Your task to perform on an android device: Open notification settings Image 0: 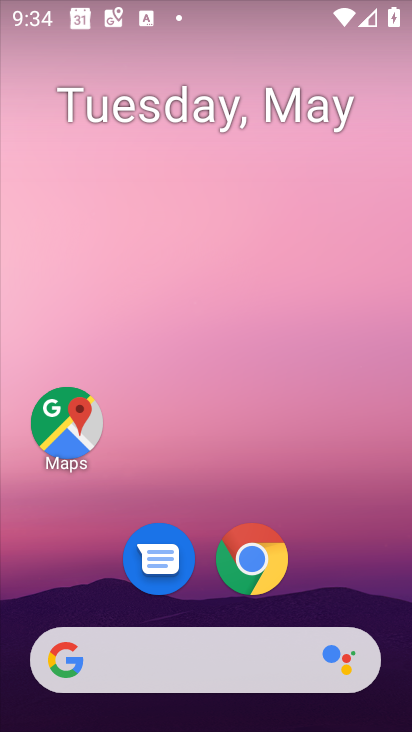
Step 0: drag from (181, 640) to (306, 67)
Your task to perform on an android device: Open notification settings Image 1: 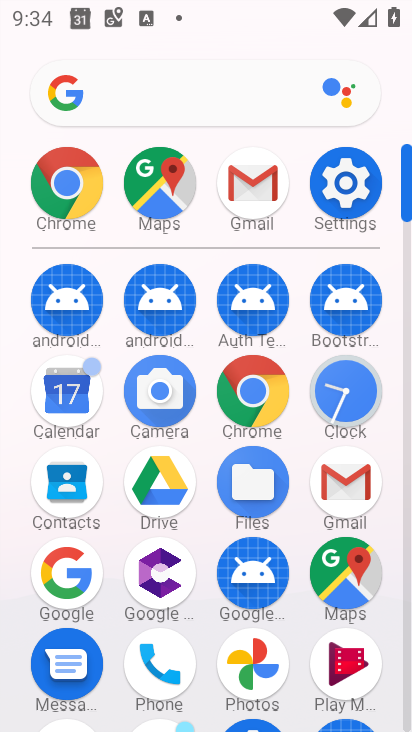
Step 1: click (351, 195)
Your task to perform on an android device: Open notification settings Image 2: 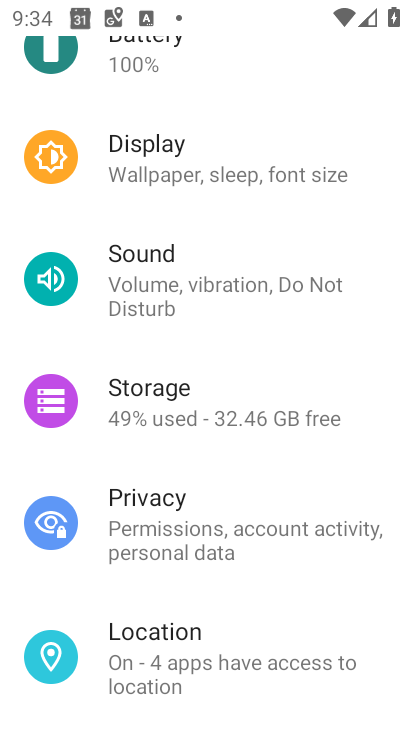
Step 2: drag from (211, 630) to (242, 22)
Your task to perform on an android device: Open notification settings Image 3: 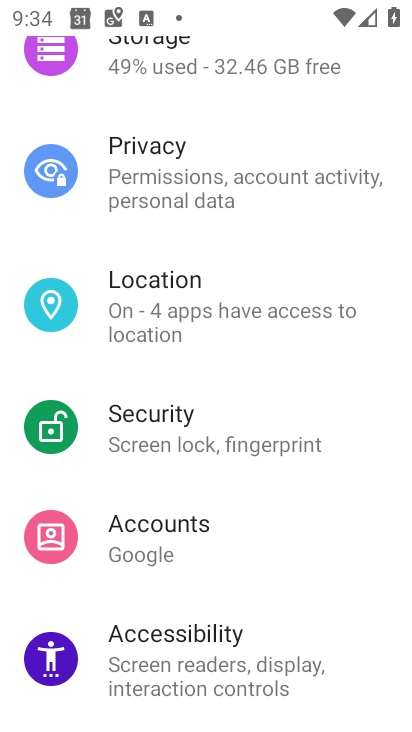
Step 3: drag from (227, 495) to (281, 729)
Your task to perform on an android device: Open notification settings Image 4: 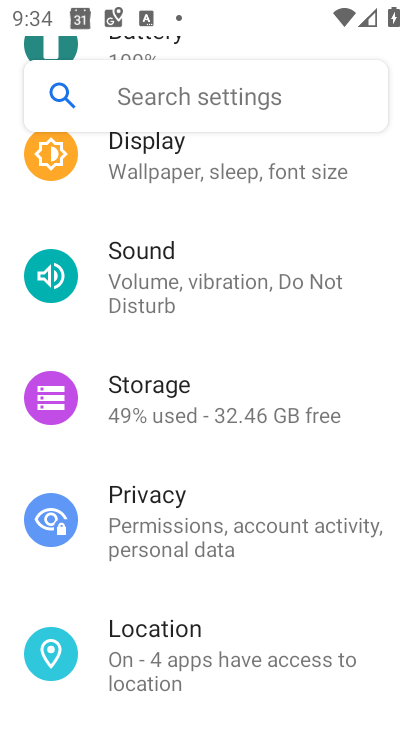
Step 4: drag from (234, 225) to (70, 649)
Your task to perform on an android device: Open notification settings Image 5: 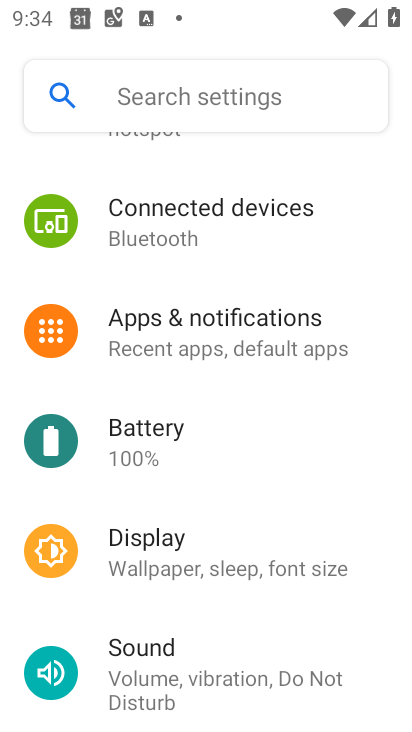
Step 5: click (218, 321)
Your task to perform on an android device: Open notification settings Image 6: 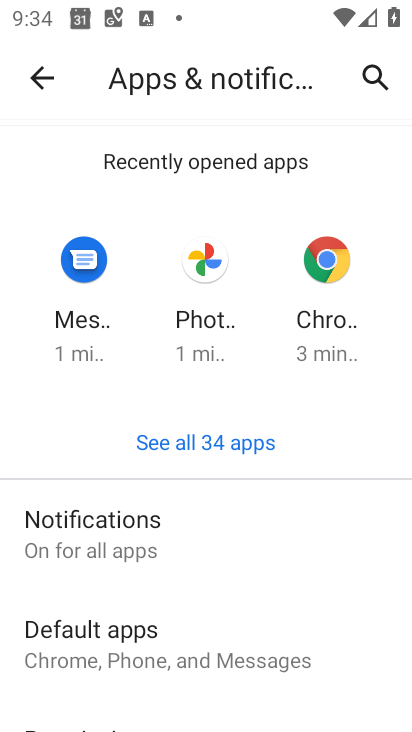
Step 6: task complete